Your task to perform on an android device: Go to Google maps Image 0: 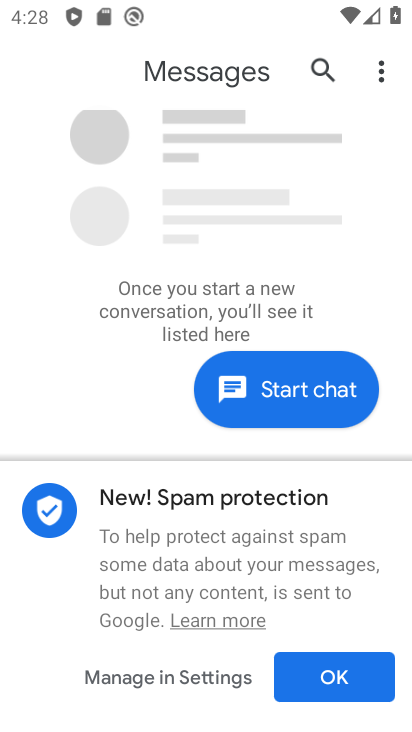
Step 0: press home button
Your task to perform on an android device: Go to Google maps Image 1: 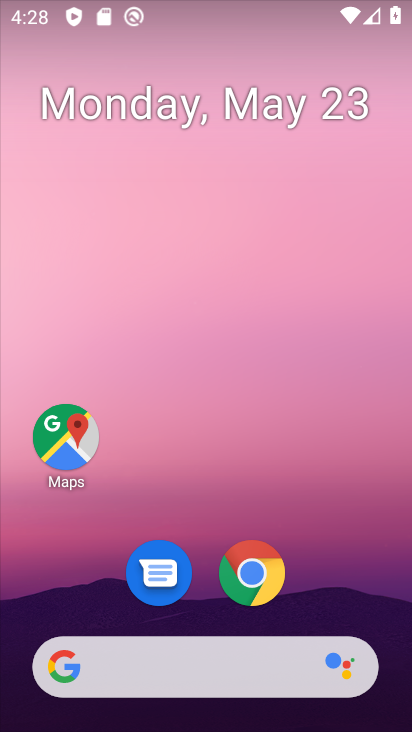
Step 1: drag from (239, 724) to (245, 235)
Your task to perform on an android device: Go to Google maps Image 2: 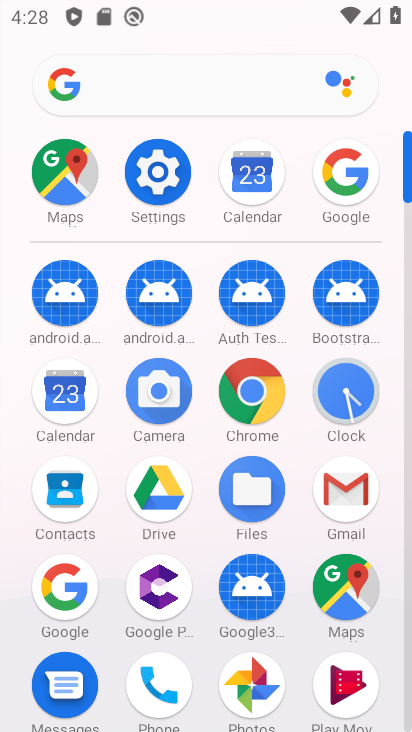
Step 2: click (334, 594)
Your task to perform on an android device: Go to Google maps Image 3: 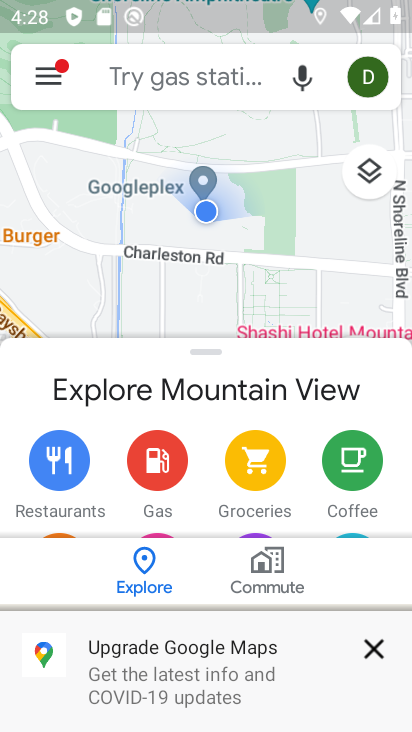
Step 3: task complete